Your task to perform on an android device: toggle improve location accuracy Image 0: 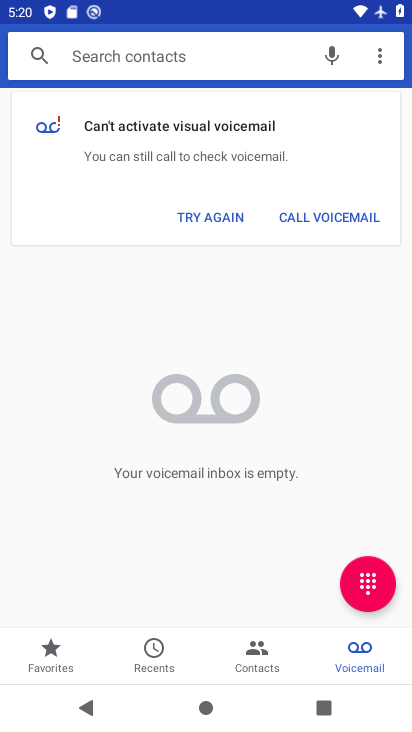
Step 0: press back button
Your task to perform on an android device: toggle improve location accuracy Image 1: 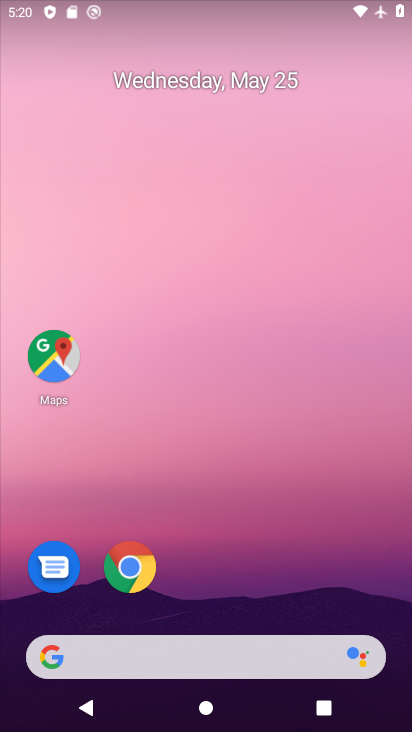
Step 1: drag from (224, 577) to (212, 64)
Your task to perform on an android device: toggle improve location accuracy Image 2: 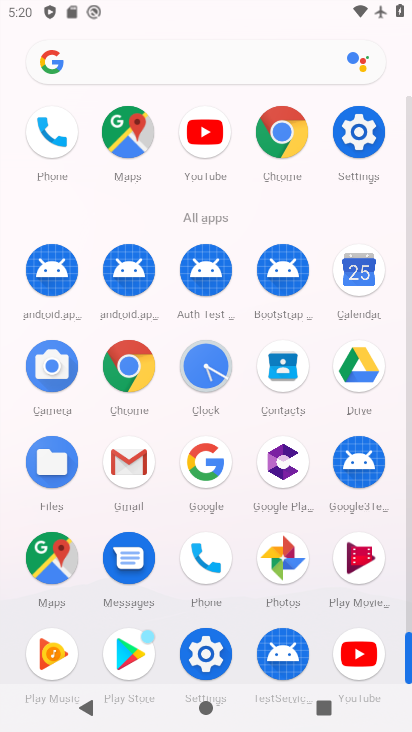
Step 2: drag from (13, 382) to (19, 186)
Your task to perform on an android device: toggle improve location accuracy Image 3: 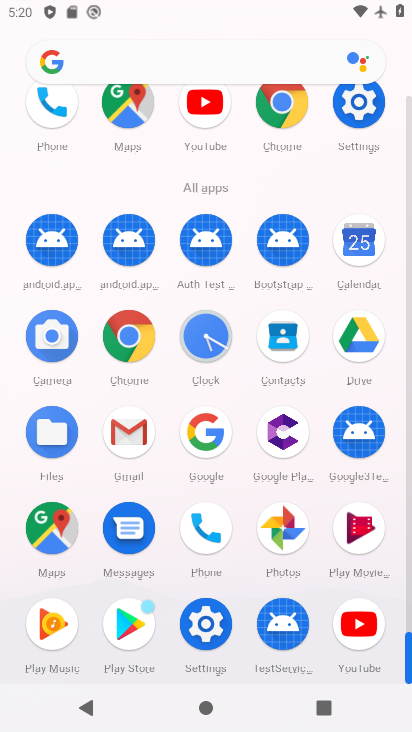
Step 3: click (206, 620)
Your task to perform on an android device: toggle improve location accuracy Image 4: 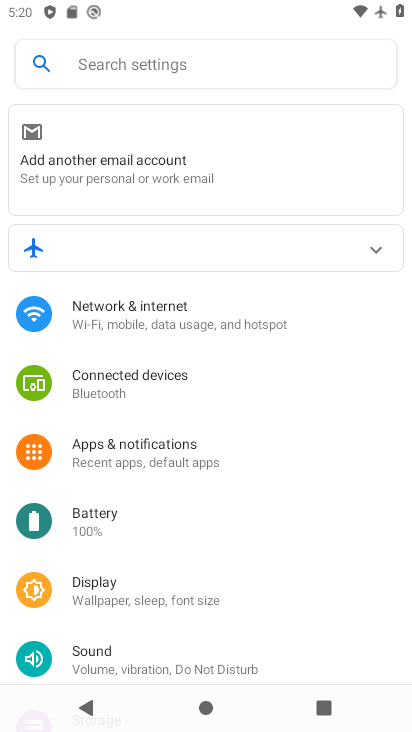
Step 4: drag from (275, 569) to (275, 215)
Your task to perform on an android device: toggle improve location accuracy Image 5: 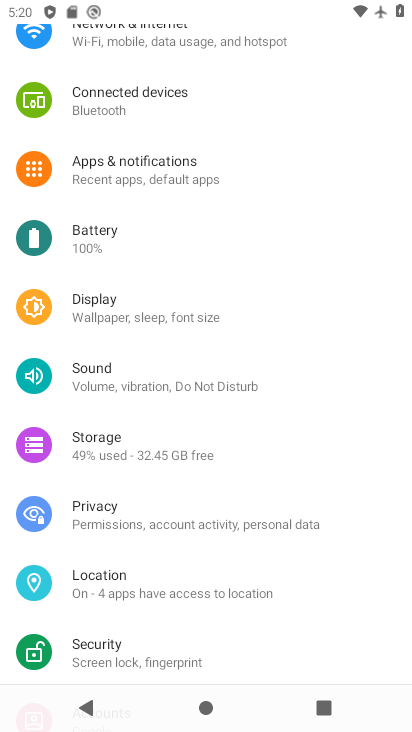
Step 5: drag from (256, 577) to (228, 159)
Your task to perform on an android device: toggle improve location accuracy Image 6: 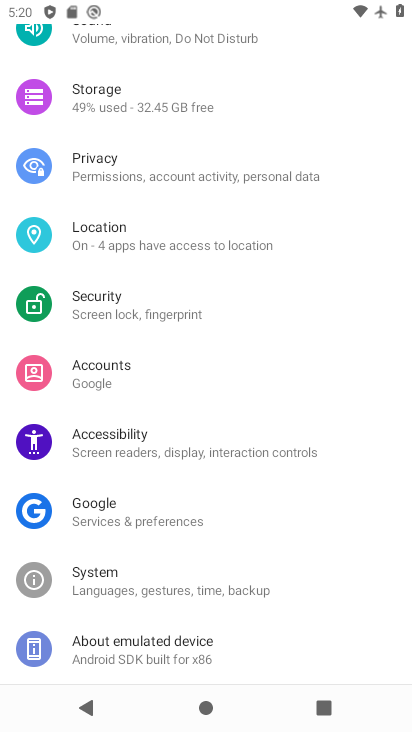
Step 6: drag from (249, 456) to (264, 229)
Your task to perform on an android device: toggle improve location accuracy Image 7: 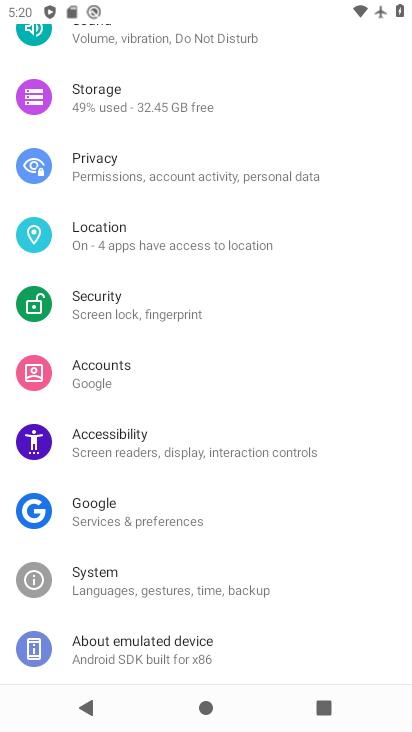
Step 7: click (156, 229)
Your task to perform on an android device: toggle improve location accuracy Image 8: 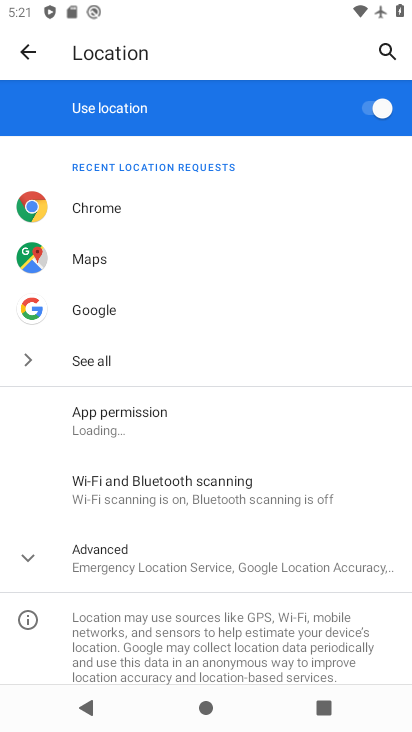
Step 8: click (51, 556)
Your task to perform on an android device: toggle improve location accuracy Image 9: 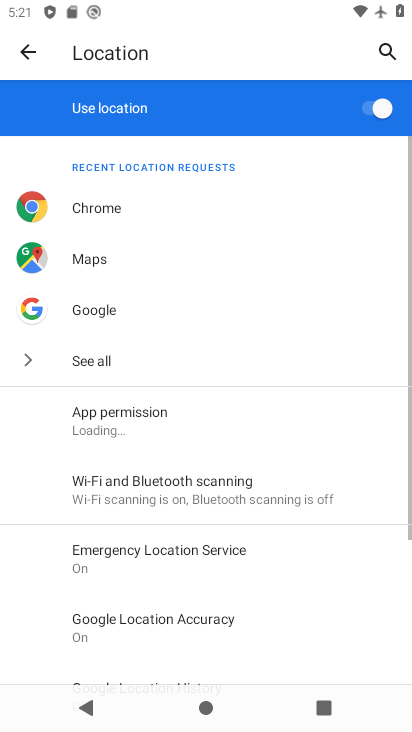
Step 9: drag from (225, 592) to (244, 233)
Your task to perform on an android device: toggle improve location accuracy Image 10: 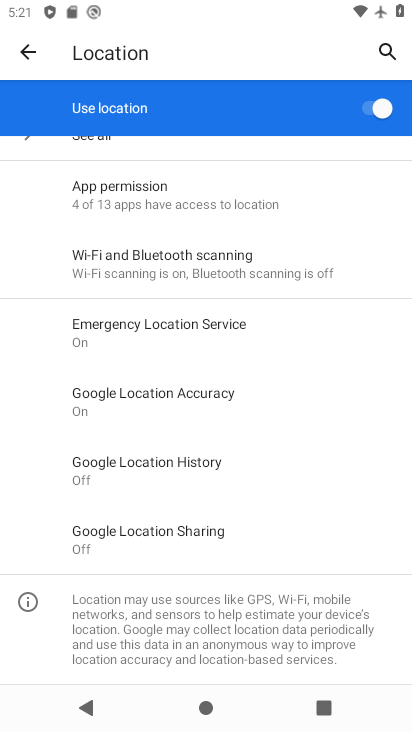
Step 10: click (184, 389)
Your task to perform on an android device: toggle improve location accuracy Image 11: 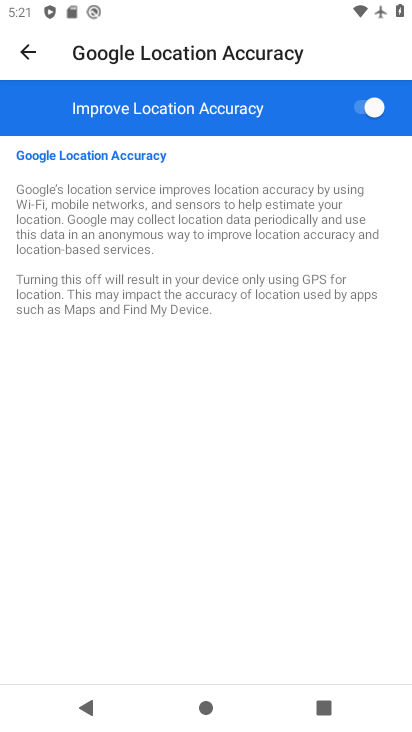
Step 11: click (359, 104)
Your task to perform on an android device: toggle improve location accuracy Image 12: 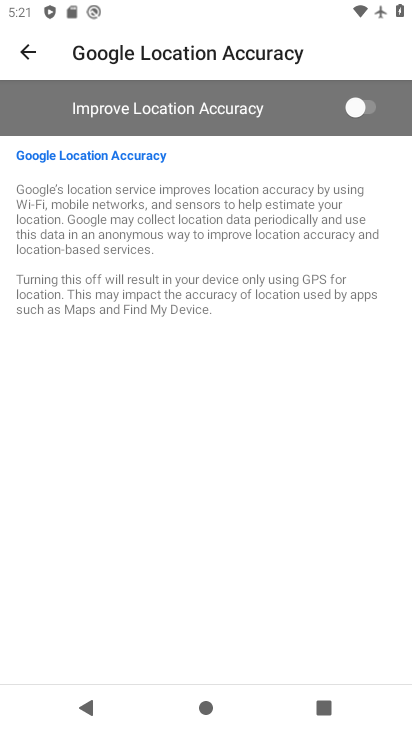
Step 12: task complete